Your task to perform on an android device: toggle pop-ups in chrome Image 0: 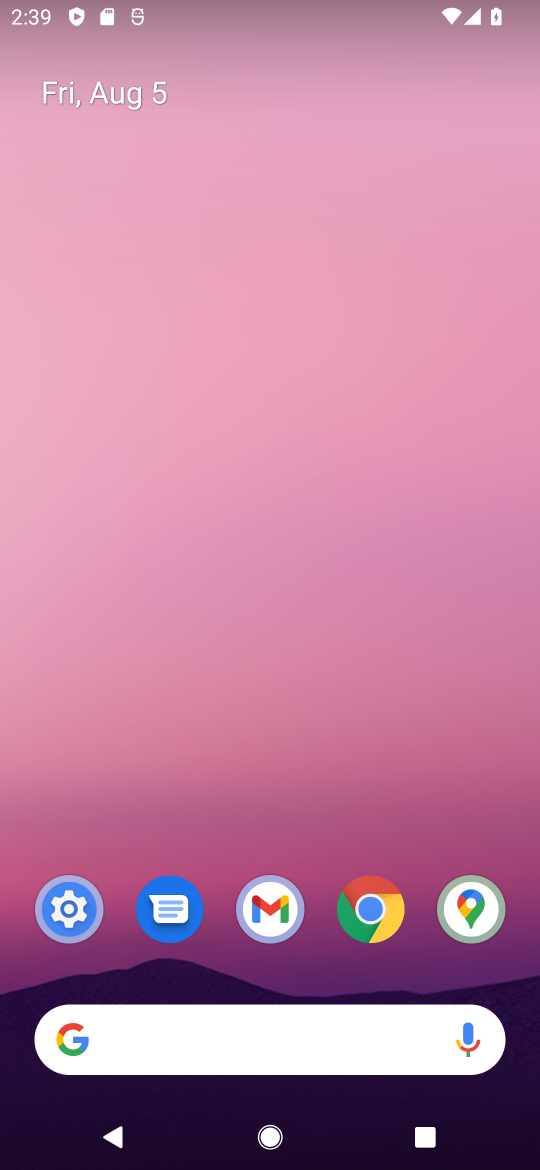
Step 0: click (365, 943)
Your task to perform on an android device: toggle pop-ups in chrome Image 1: 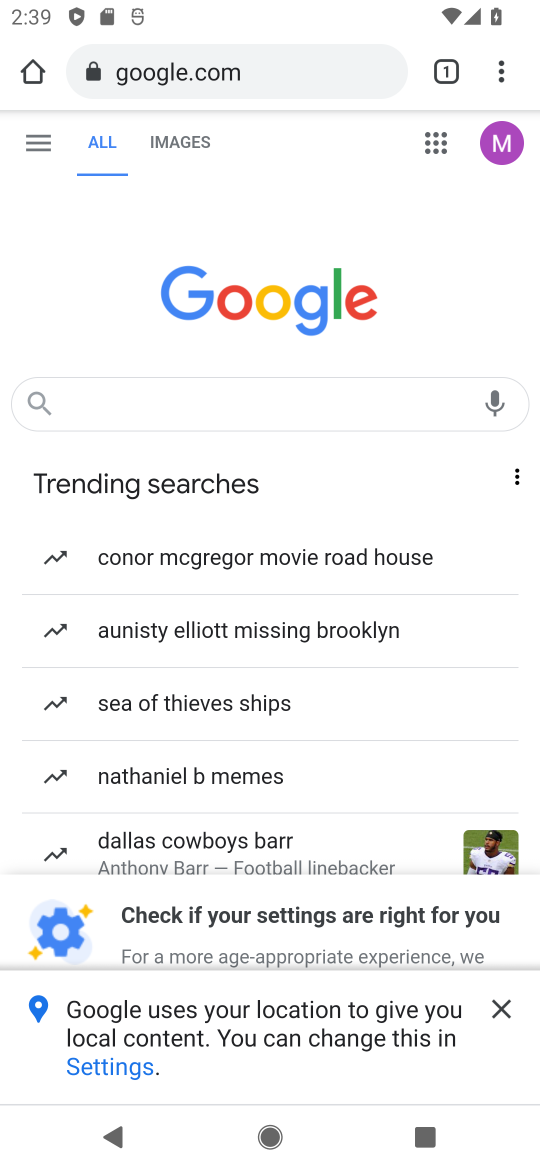
Step 1: click (505, 62)
Your task to perform on an android device: toggle pop-ups in chrome Image 2: 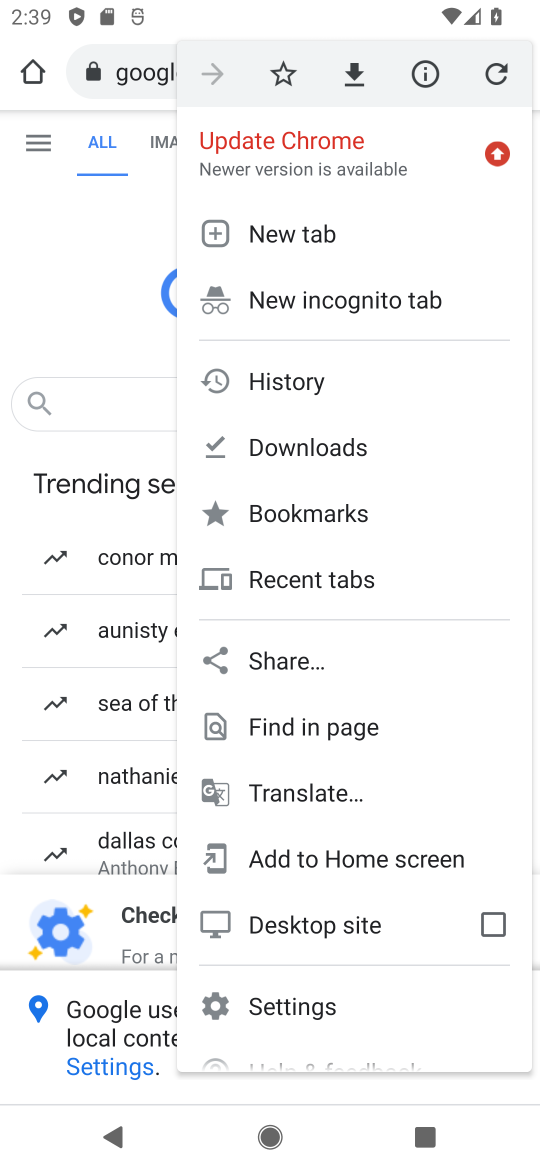
Step 2: click (350, 1018)
Your task to perform on an android device: toggle pop-ups in chrome Image 3: 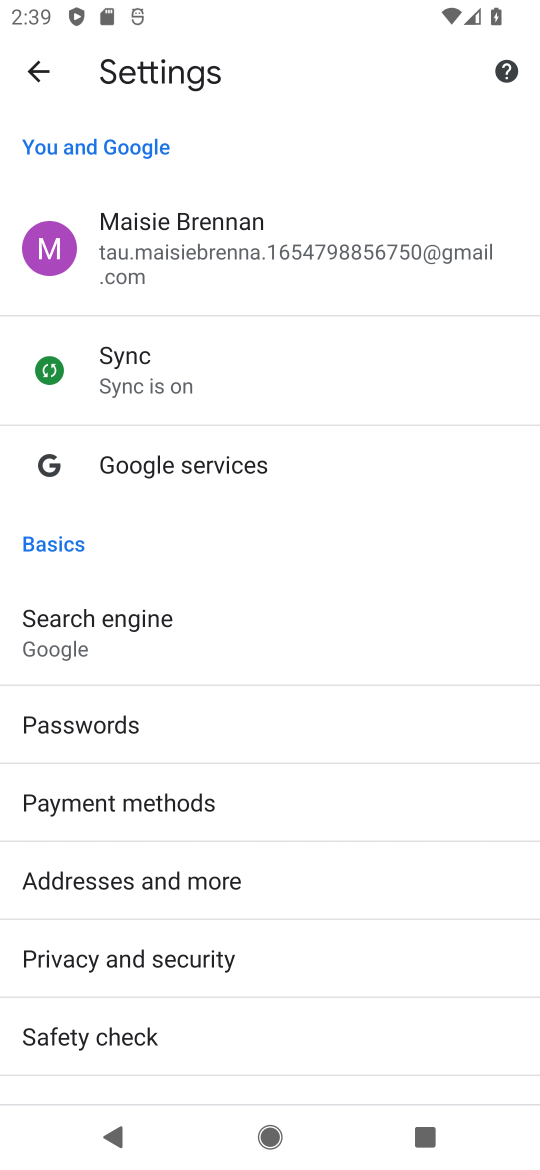
Step 3: drag from (265, 1049) to (240, 118)
Your task to perform on an android device: toggle pop-ups in chrome Image 4: 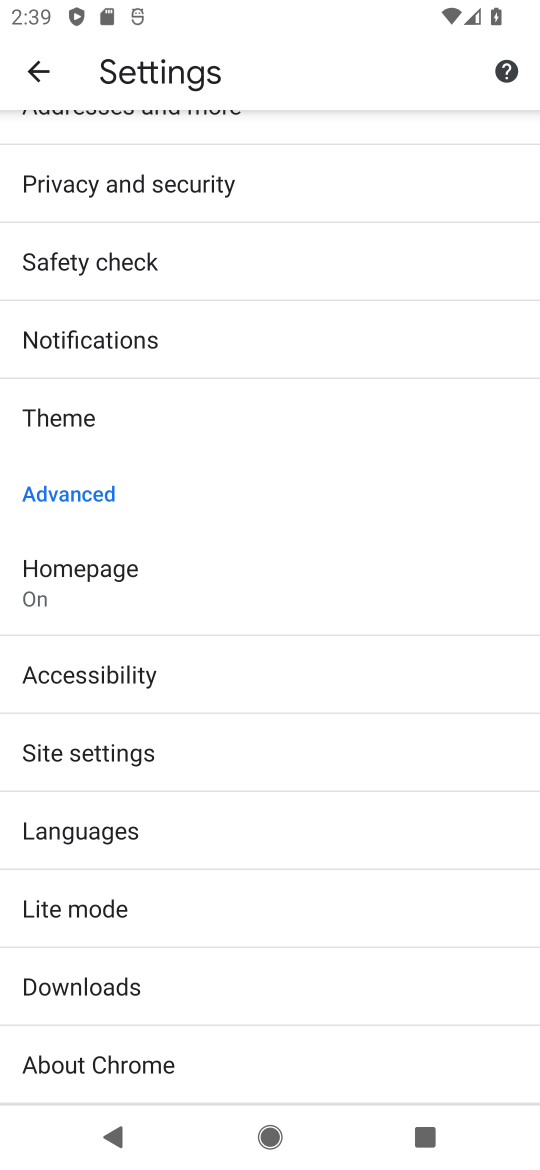
Step 4: click (197, 729)
Your task to perform on an android device: toggle pop-ups in chrome Image 5: 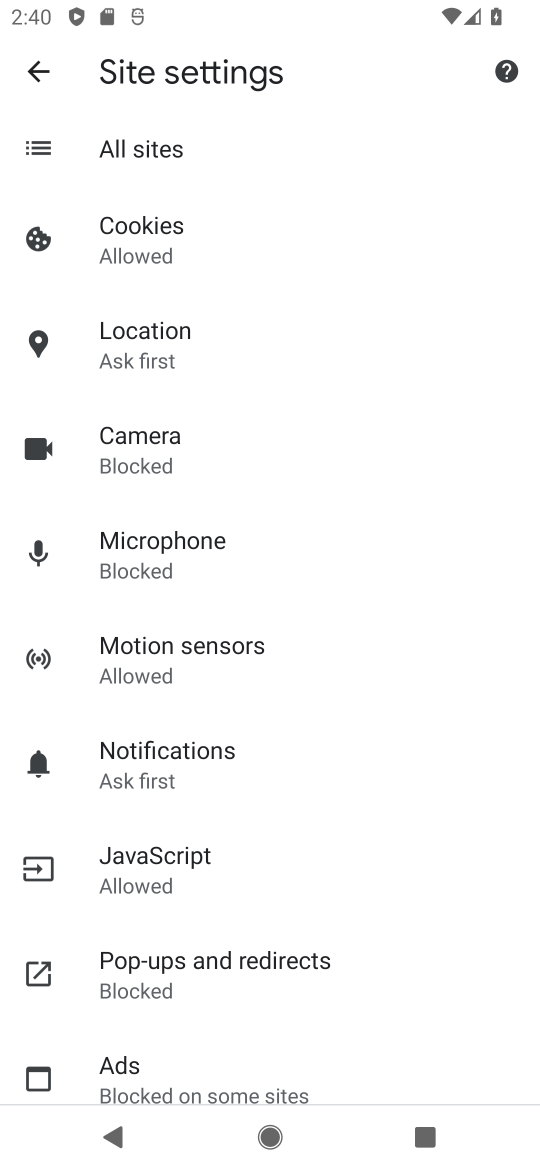
Step 5: click (247, 941)
Your task to perform on an android device: toggle pop-ups in chrome Image 6: 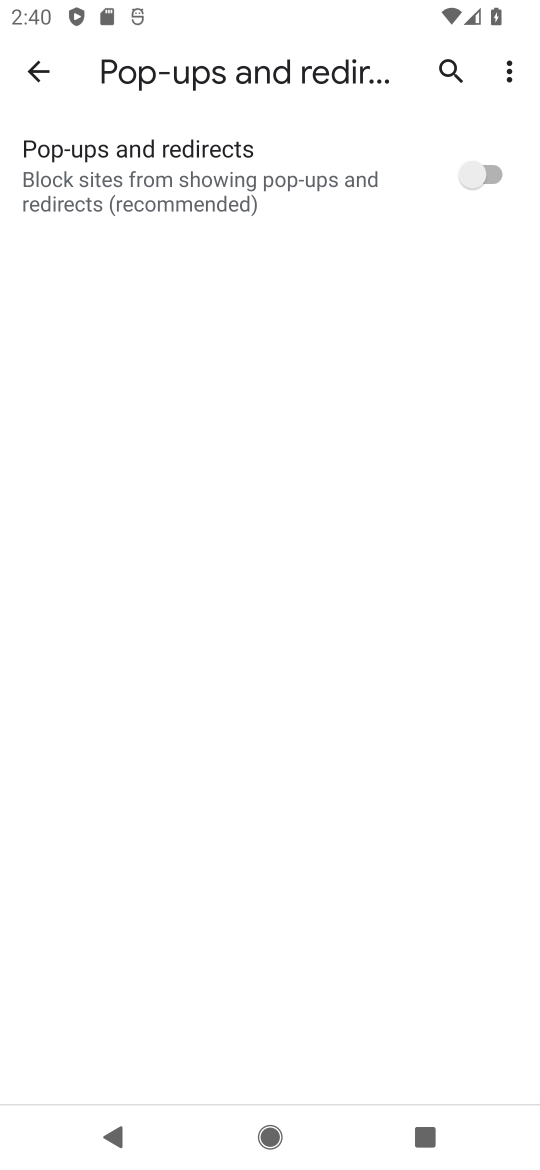
Step 6: click (462, 165)
Your task to perform on an android device: toggle pop-ups in chrome Image 7: 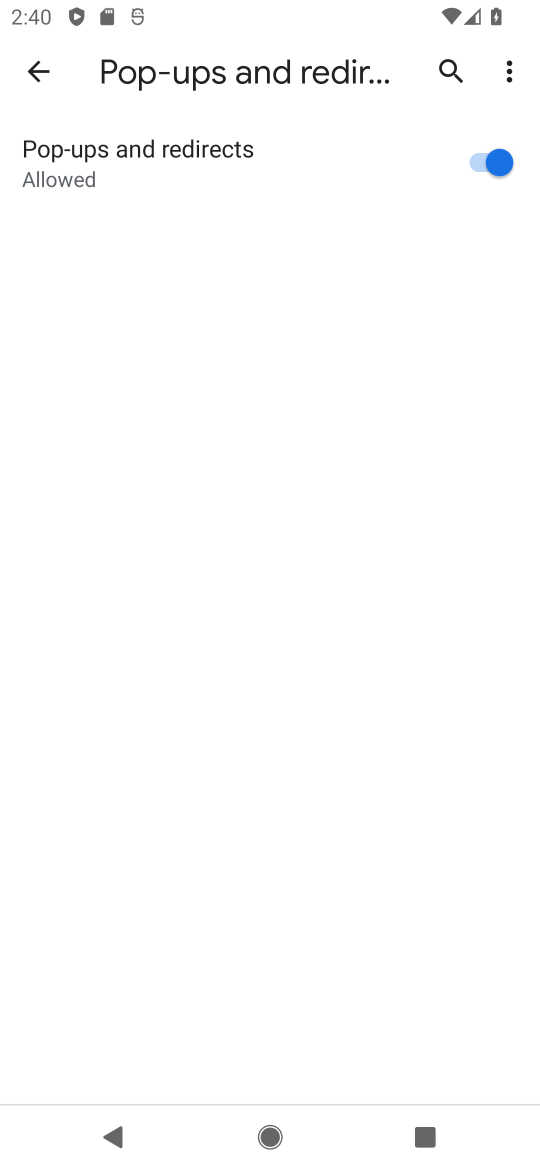
Step 7: task complete